Your task to perform on an android device: What is the news today? Image 0: 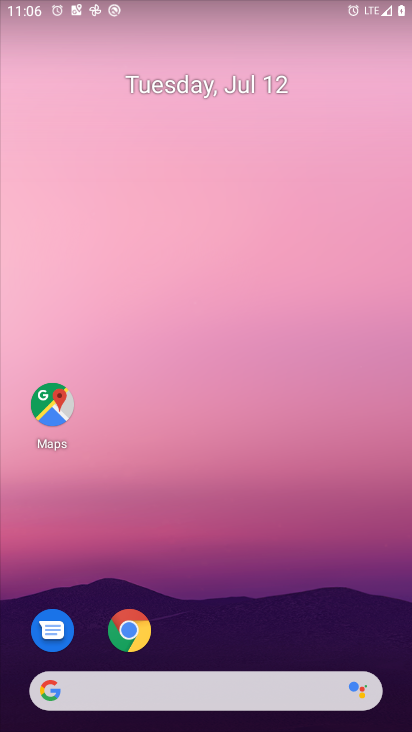
Step 0: click (187, 692)
Your task to perform on an android device: What is the news today? Image 1: 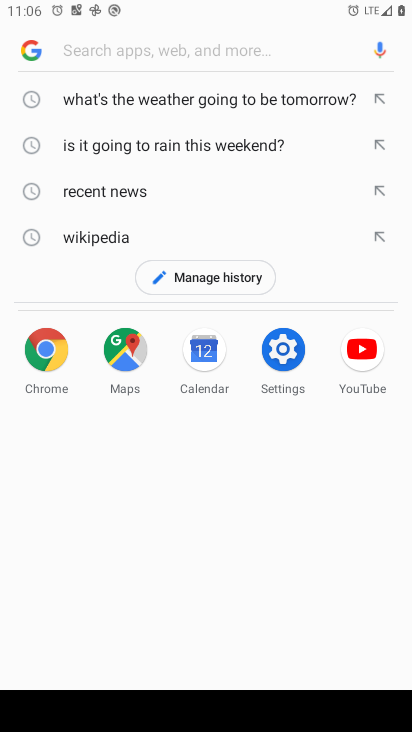
Step 1: type "news today"
Your task to perform on an android device: What is the news today? Image 2: 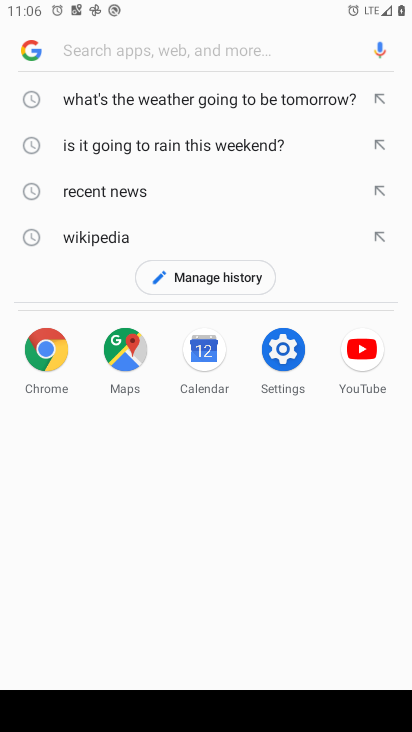
Step 2: click (161, 41)
Your task to perform on an android device: What is the news today? Image 3: 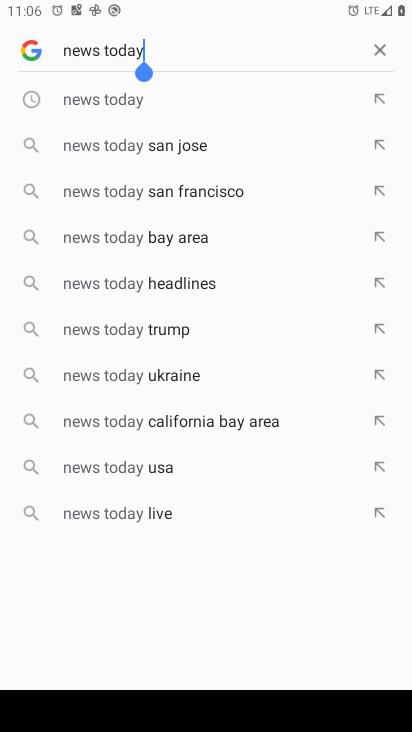
Step 3: press enter
Your task to perform on an android device: What is the news today? Image 4: 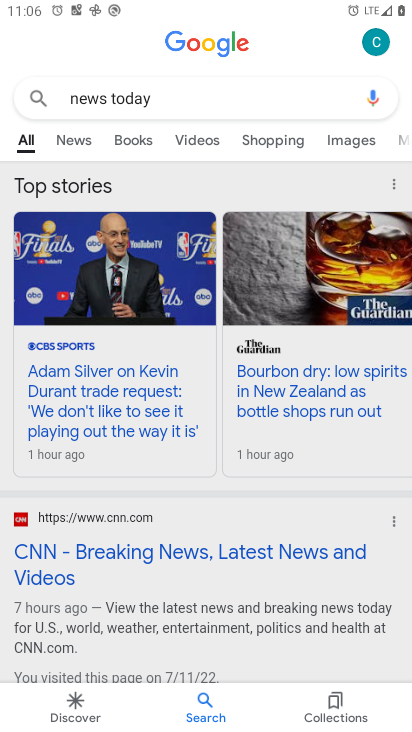
Step 4: task complete